Your task to perform on an android device: Go to Google maps Image 0: 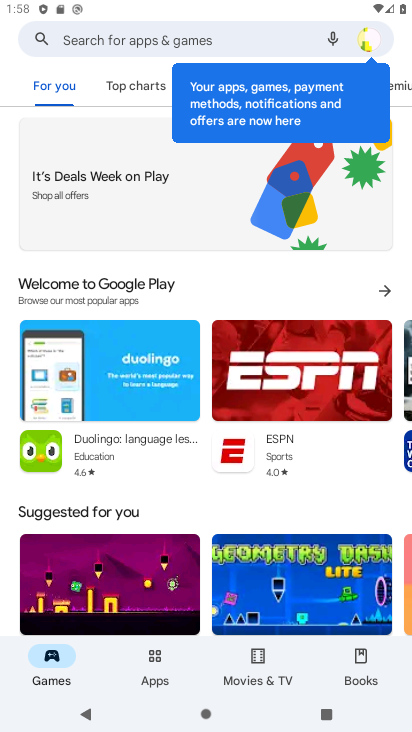
Step 0: press home button
Your task to perform on an android device: Go to Google maps Image 1: 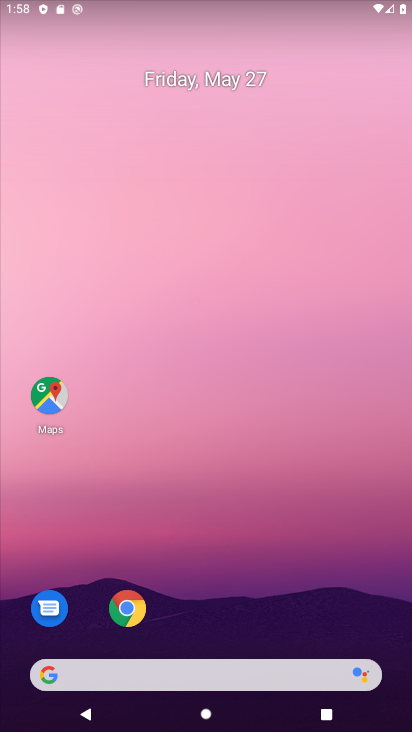
Step 1: click (50, 395)
Your task to perform on an android device: Go to Google maps Image 2: 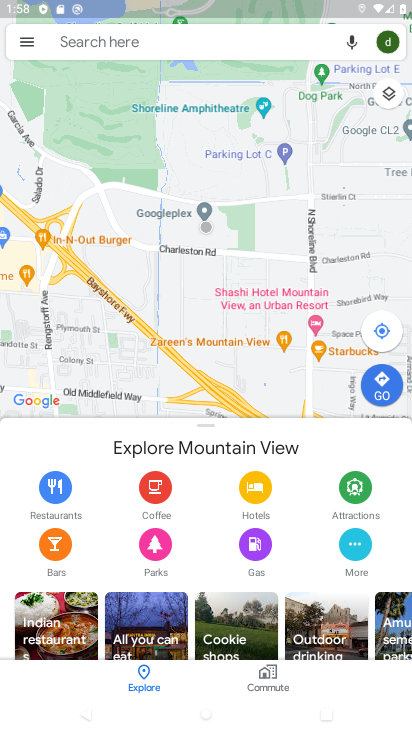
Step 2: task complete